Your task to perform on an android device: Do I have any events this weekend? Image 0: 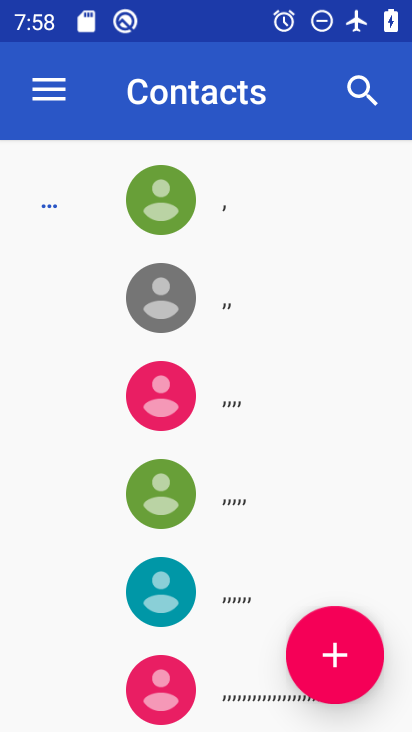
Step 0: press home button
Your task to perform on an android device: Do I have any events this weekend? Image 1: 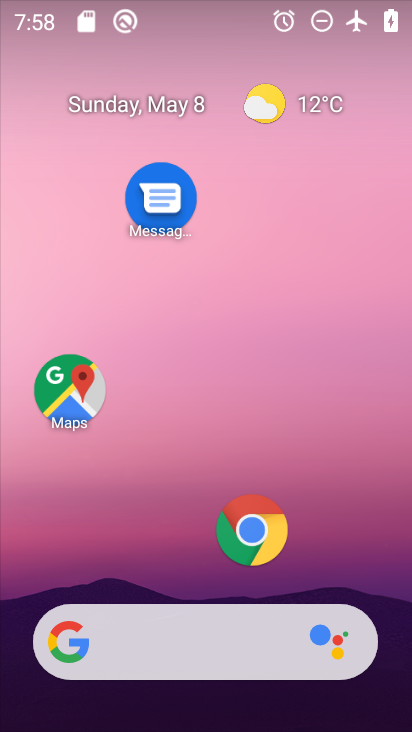
Step 1: drag from (153, 550) to (202, 20)
Your task to perform on an android device: Do I have any events this weekend? Image 2: 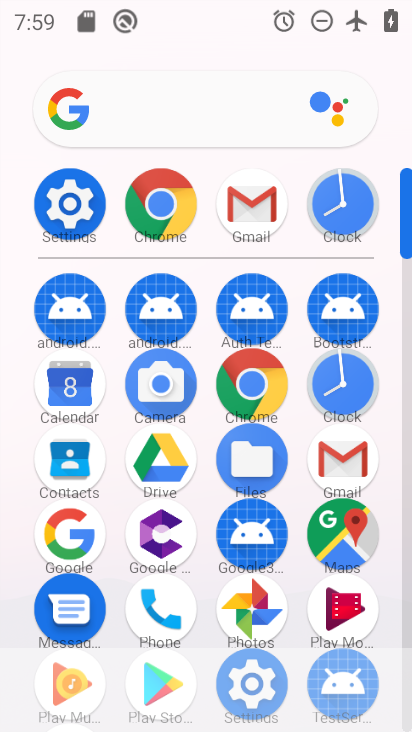
Step 2: click (68, 386)
Your task to perform on an android device: Do I have any events this weekend? Image 3: 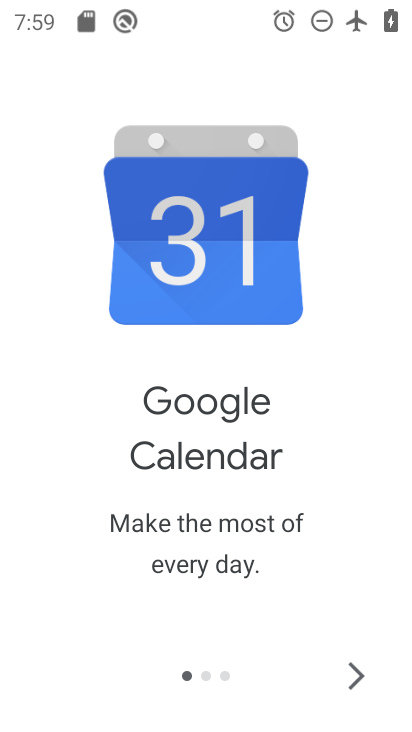
Step 3: click (356, 673)
Your task to perform on an android device: Do I have any events this weekend? Image 4: 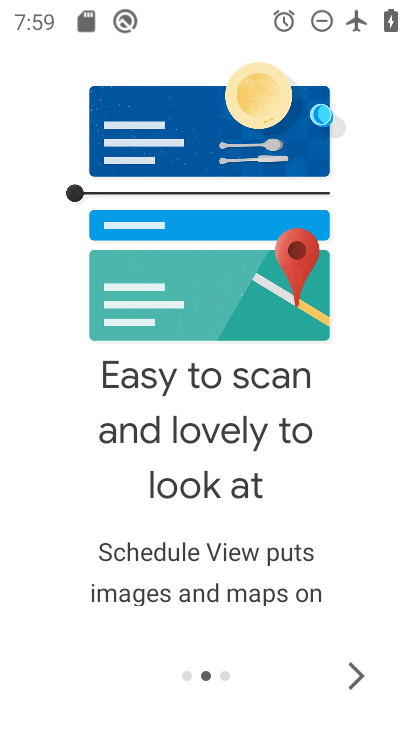
Step 4: click (349, 676)
Your task to perform on an android device: Do I have any events this weekend? Image 5: 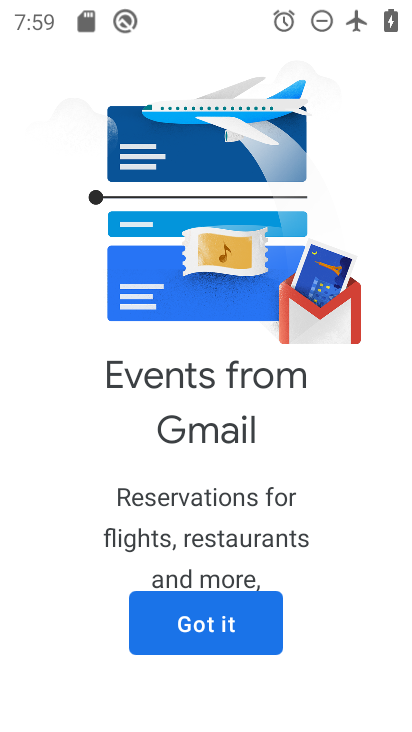
Step 5: click (218, 622)
Your task to perform on an android device: Do I have any events this weekend? Image 6: 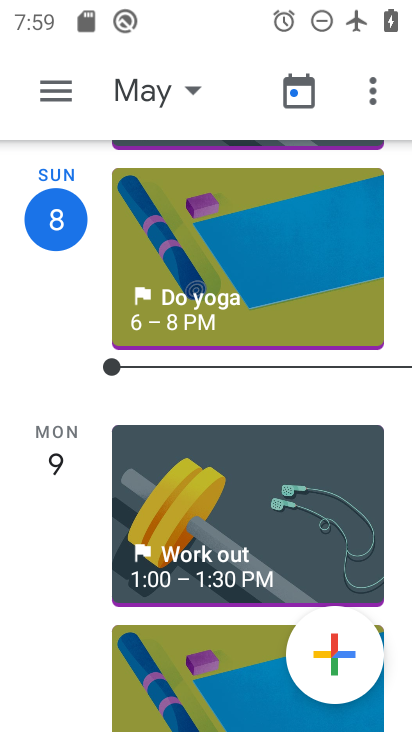
Step 6: click (46, 99)
Your task to perform on an android device: Do I have any events this weekend? Image 7: 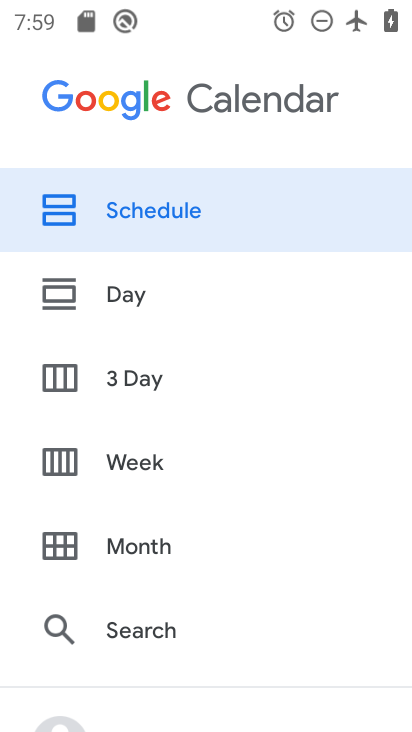
Step 7: click (87, 461)
Your task to perform on an android device: Do I have any events this weekend? Image 8: 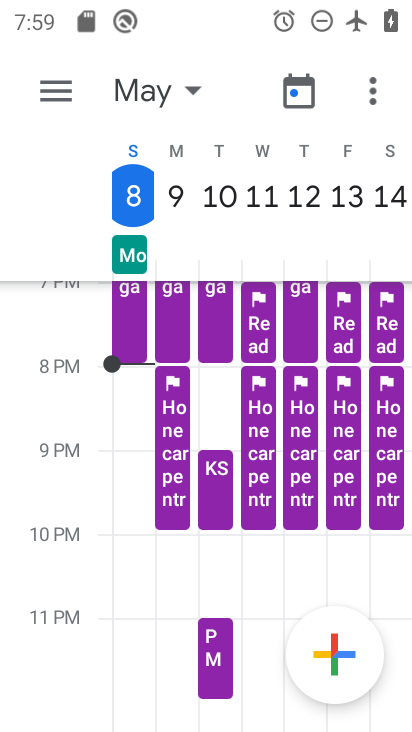
Step 8: click (133, 203)
Your task to perform on an android device: Do I have any events this weekend? Image 9: 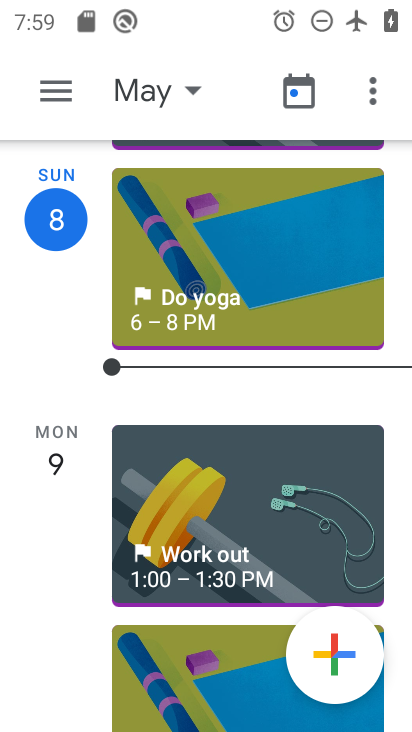
Step 9: click (43, 90)
Your task to perform on an android device: Do I have any events this weekend? Image 10: 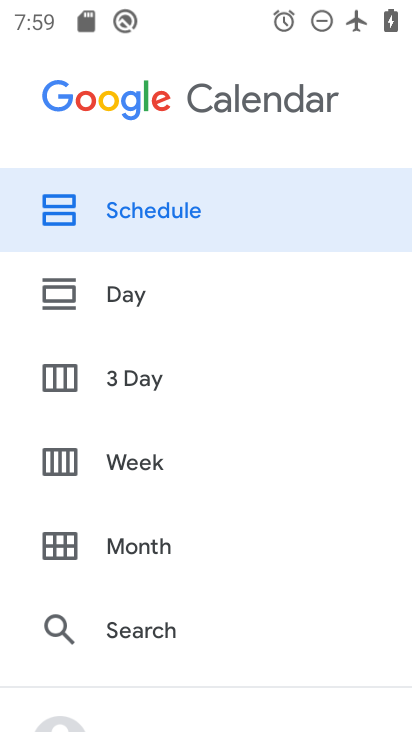
Step 10: drag from (82, 613) to (85, 144)
Your task to perform on an android device: Do I have any events this weekend? Image 11: 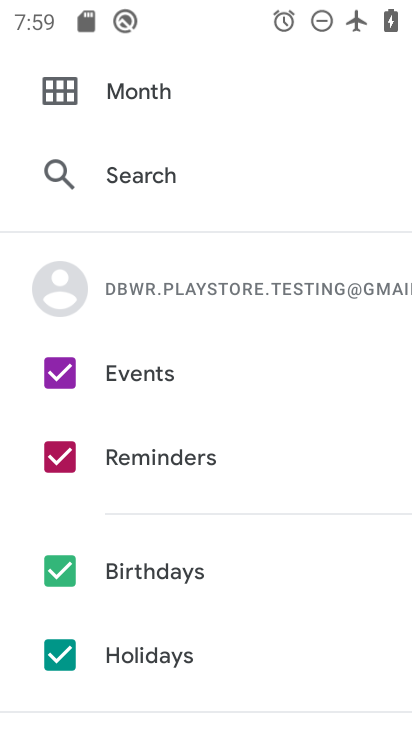
Step 11: click (58, 467)
Your task to perform on an android device: Do I have any events this weekend? Image 12: 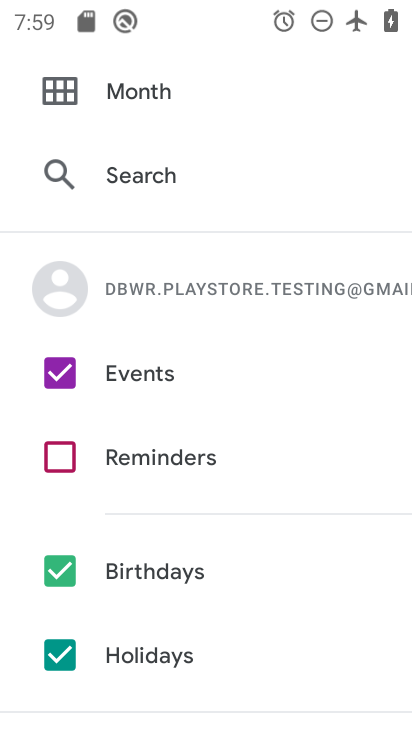
Step 12: click (65, 570)
Your task to perform on an android device: Do I have any events this weekend? Image 13: 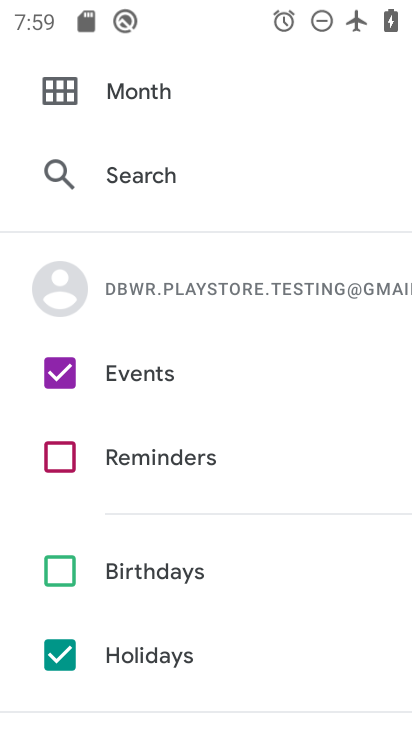
Step 13: click (66, 652)
Your task to perform on an android device: Do I have any events this weekend? Image 14: 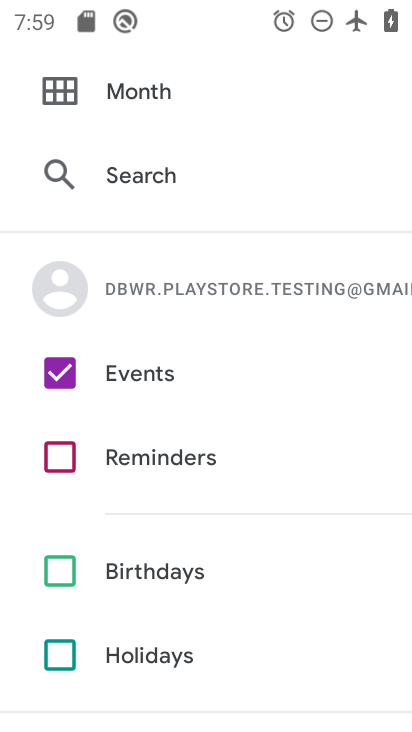
Step 14: drag from (121, 194) to (141, 635)
Your task to perform on an android device: Do I have any events this weekend? Image 15: 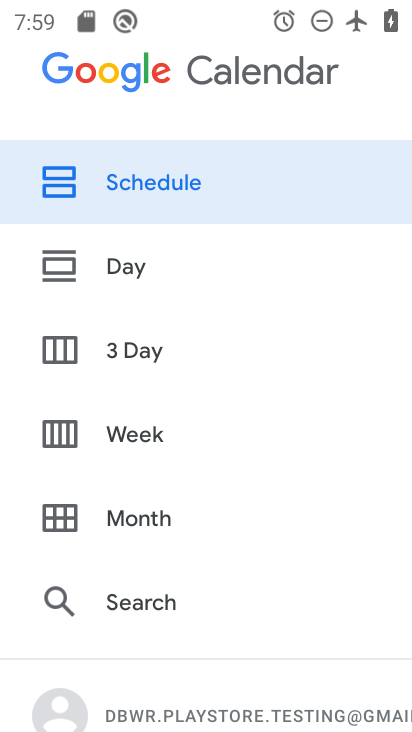
Step 15: click (87, 115)
Your task to perform on an android device: Do I have any events this weekend? Image 16: 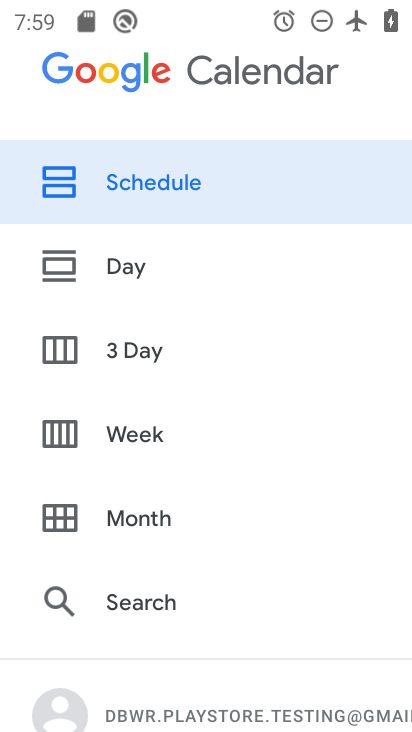
Step 16: click (158, 185)
Your task to perform on an android device: Do I have any events this weekend? Image 17: 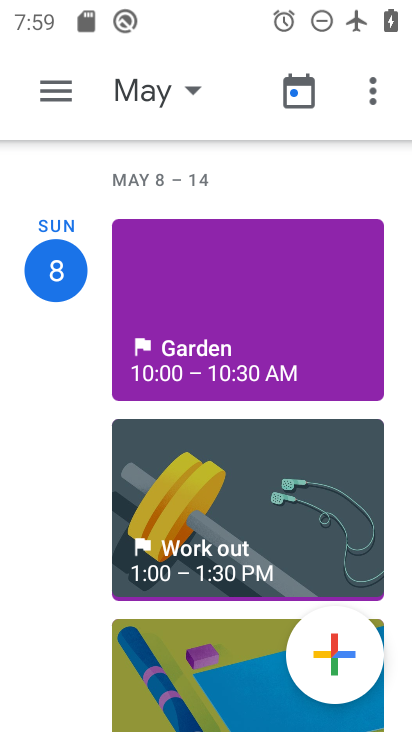
Step 17: task complete